Your task to perform on an android device: Go to Wikipedia Image 0: 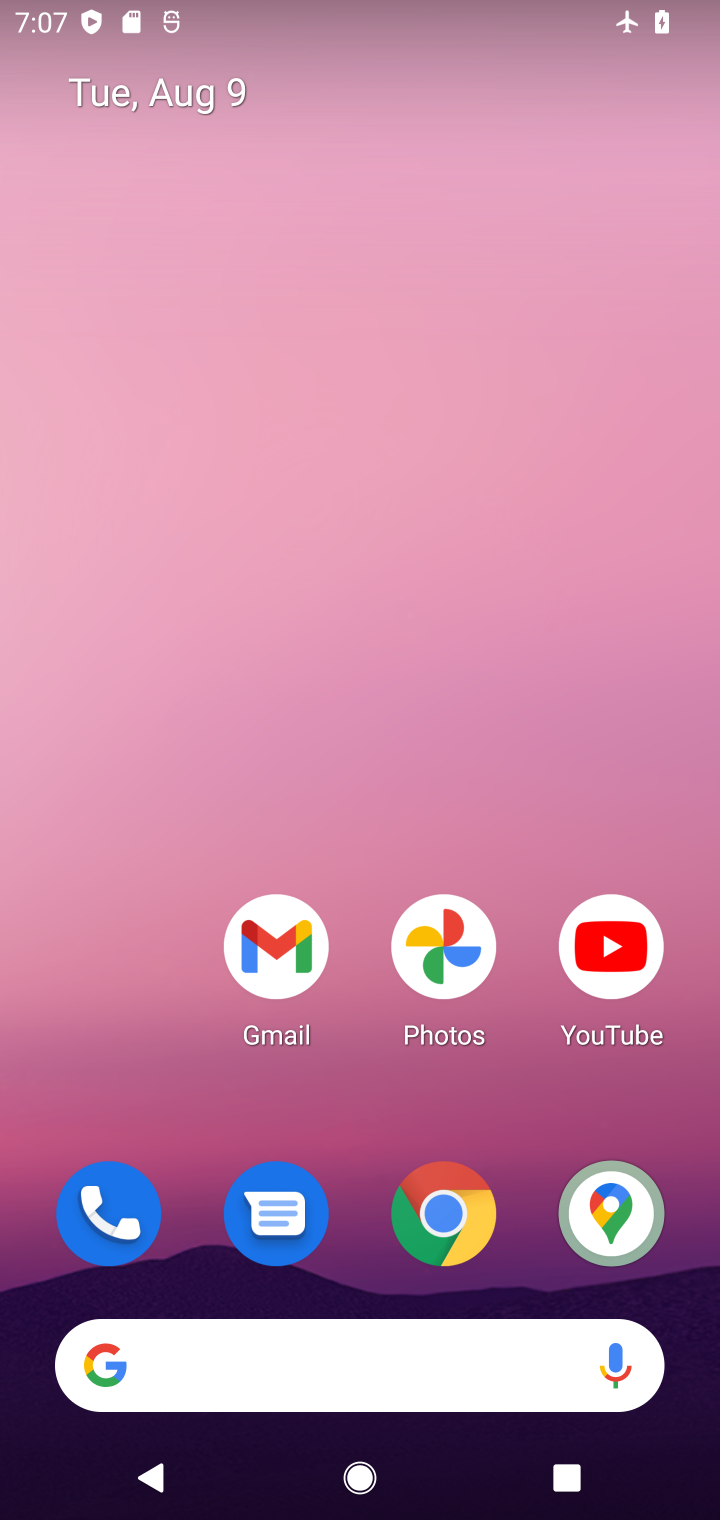
Step 0: click (464, 1230)
Your task to perform on an android device: Go to Wikipedia Image 1: 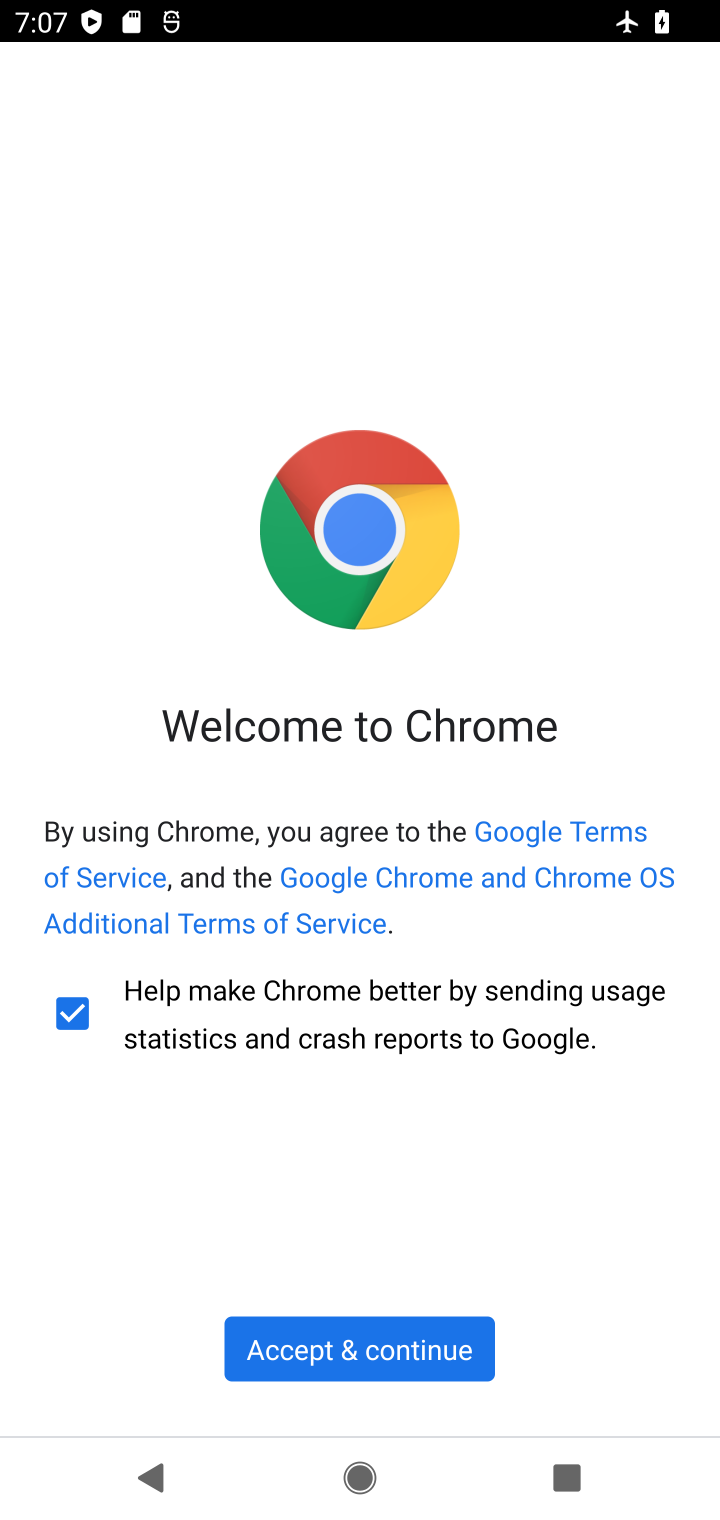
Step 1: click (401, 1321)
Your task to perform on an android device: Go to Wikipedia Image 2: 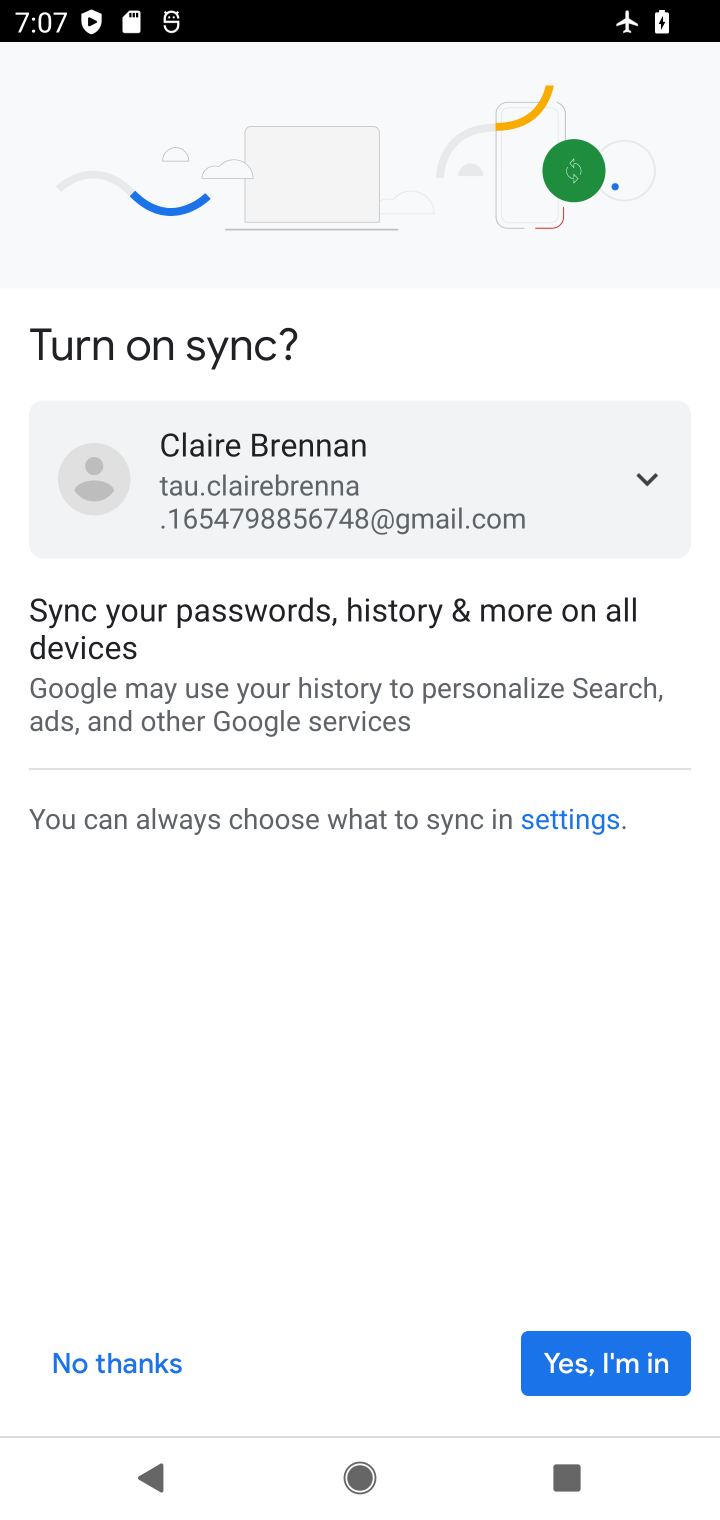
Step 2: click (594, 1375)
Your task to perform on an android device: Go to Wikipedia Image 3: 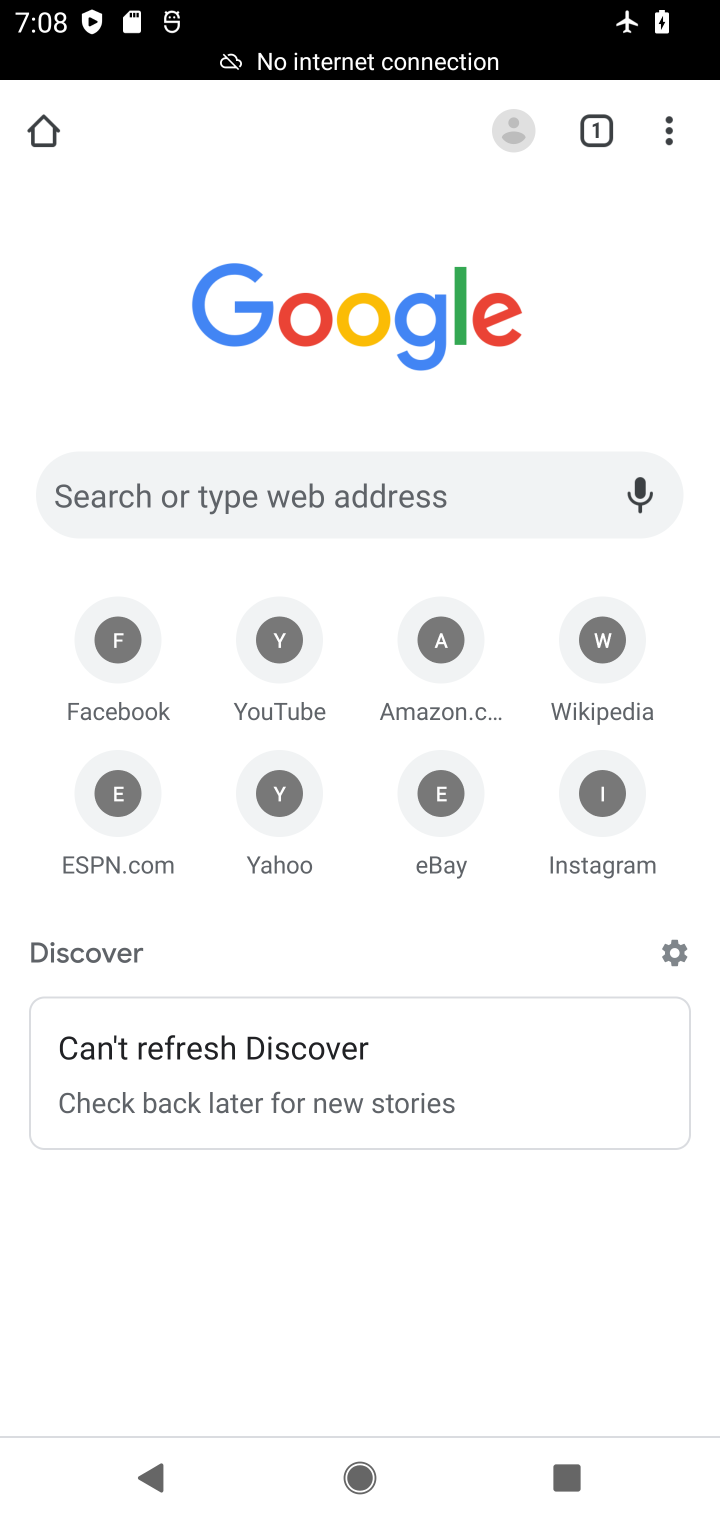
Step 3: click (588, 635)
Your task to perform on an android device: Go to Wikipedia Image 4: 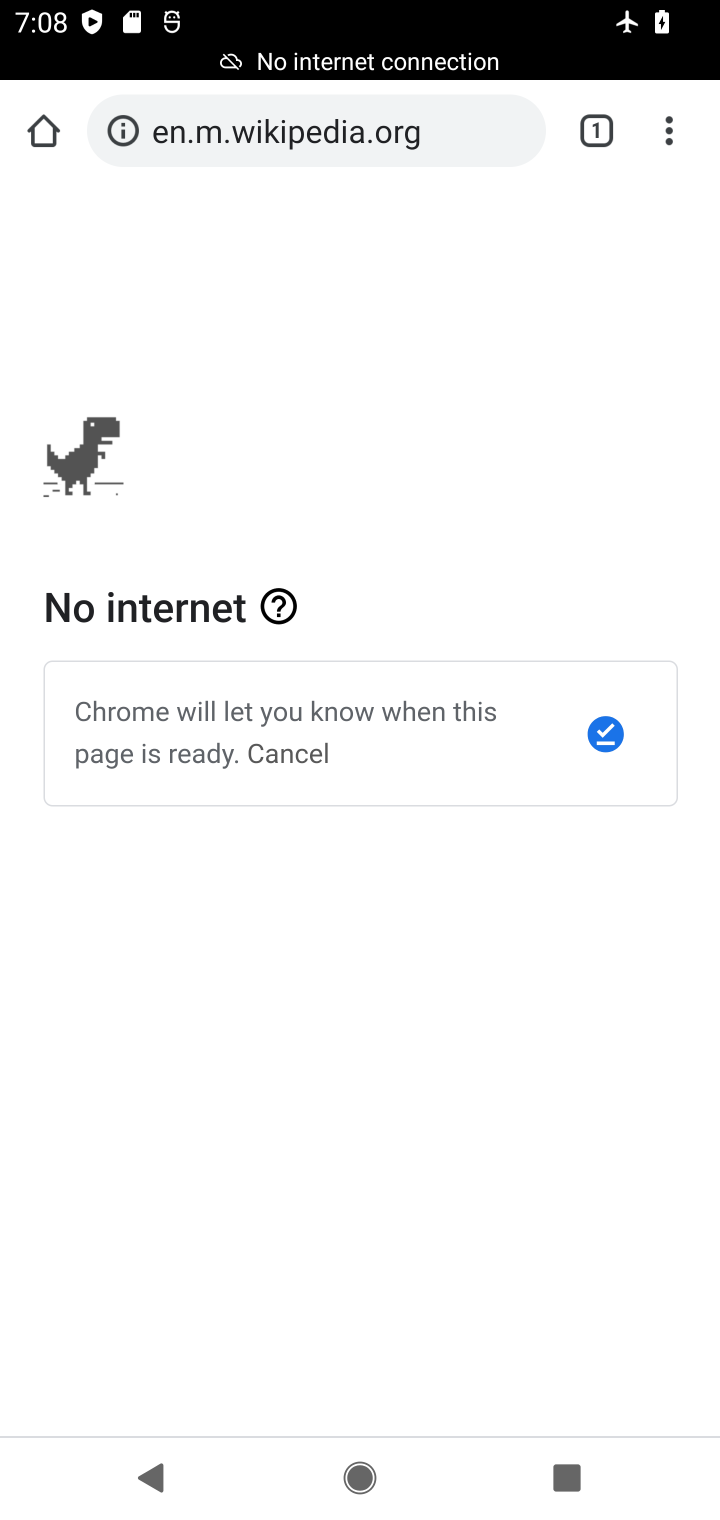
Step 4: task complete